Your task to perform on an android device: toggle notification dots Image 0: 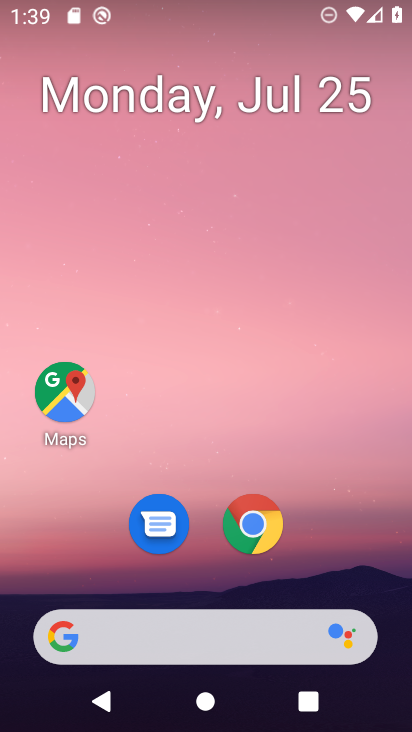
Step 0: drag from (233, 615) to (324, 73)
Your task to perform on an android device: toggle notification dots Image 1: 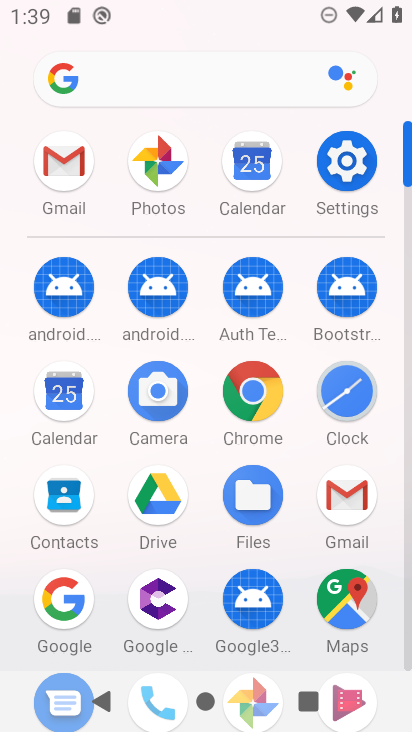
Step 1: click (349, 145)
Your task to perform on an android device: toggle notification dots Image 2: 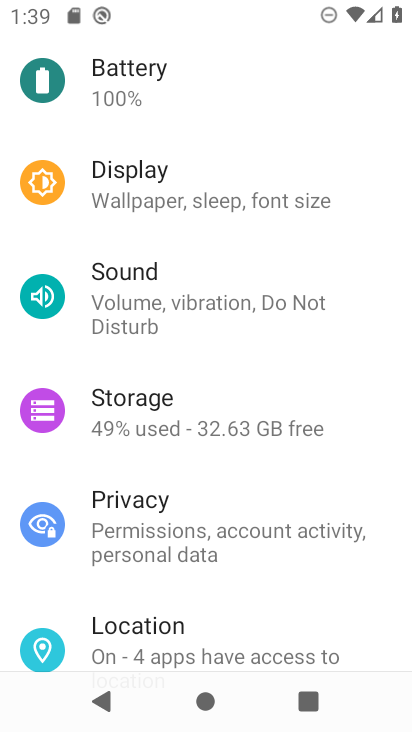
Step 2: drag from (319, 153) to (288, 620)
Your task to perform on an android device: toggle notification dots Image 3: 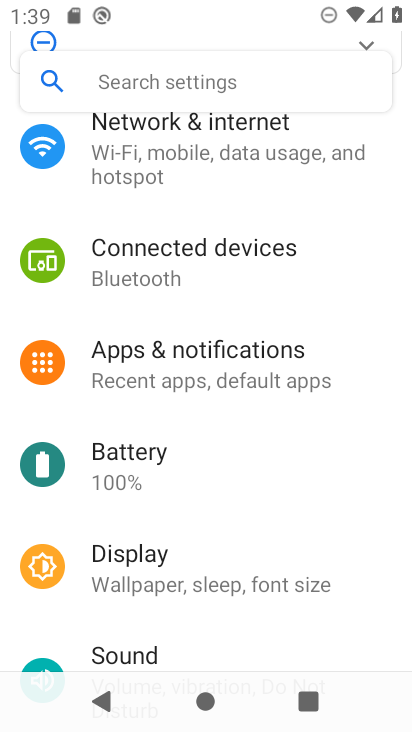
Step 3: click (267, 362)
Your task to perform on an android device: toggle notification dots Image 4: 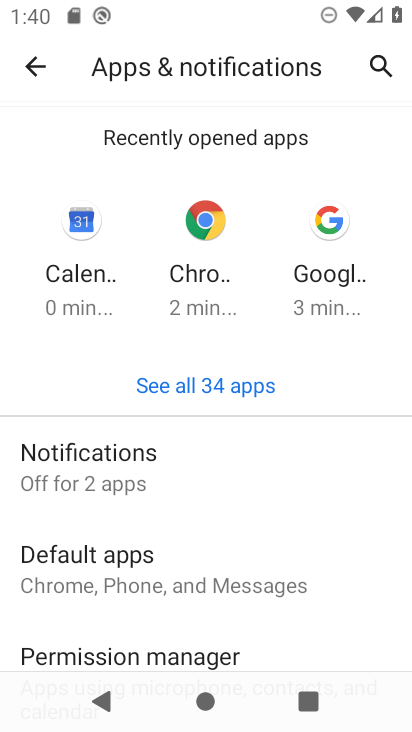
Step 4: click (98, 475)
Your task to perform on an android device: toggle notification dots Image 5: 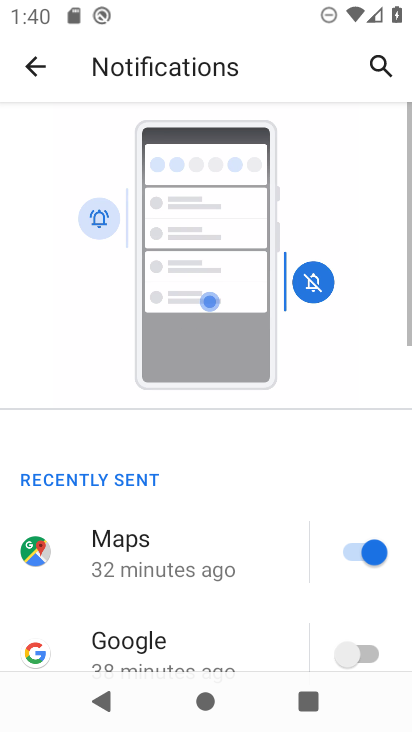
Step 5: drag from (252, 614) to (282, 87)
Your task to perform on an android device: toggle notification dots Image 6: 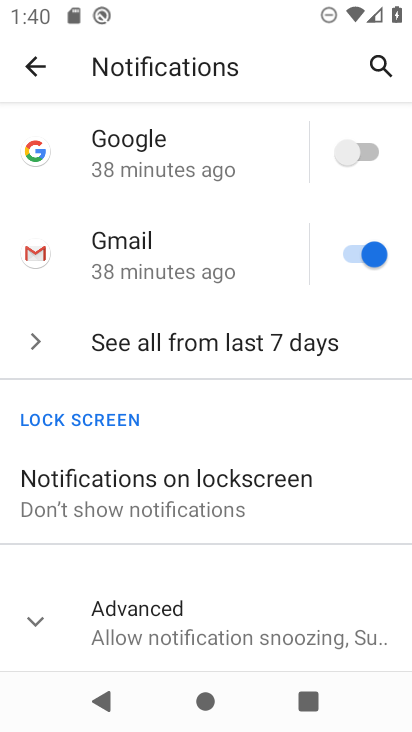
Step 6: drag from (260, 560) to (385, 99)
Your task to perform on an android device: toggle notification dots Image 7: 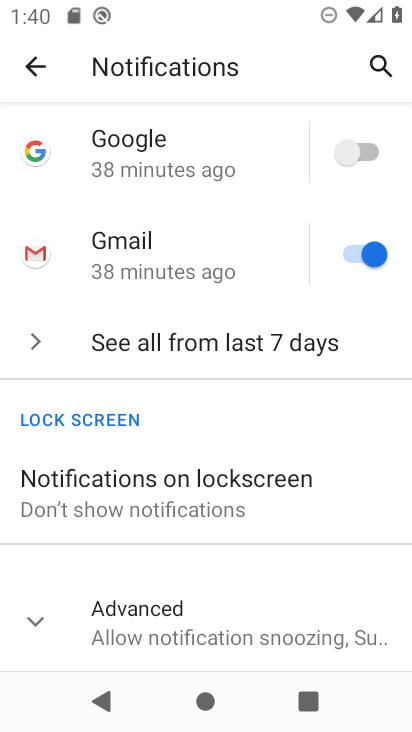
Step 7: click (225, 632)
Your task to perform on an android device: toggle notification dots Image 8: 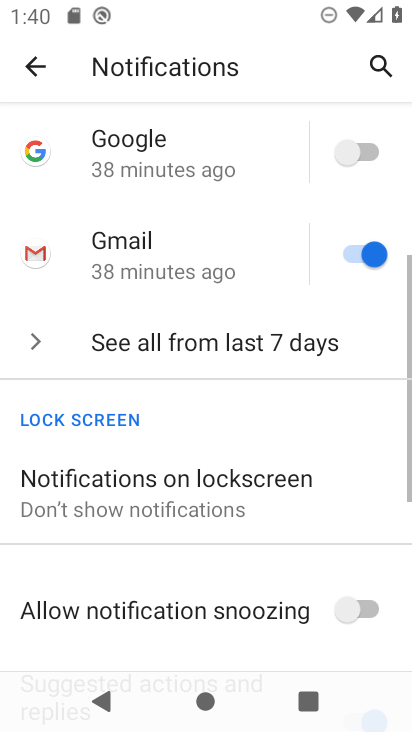
Step 8: drag from (231, 637) to (293, 63)
Your task to perform on an android device: toggle notification dots Image 9: 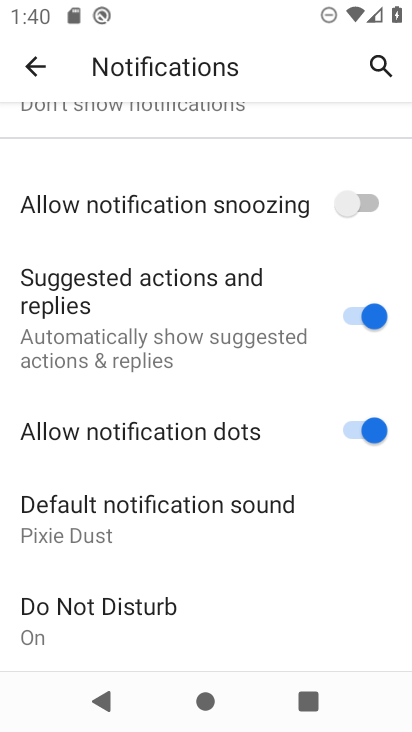
Step 9: click (353, 428)
Your task to perform on an android device: toggle notification dots Image 10: 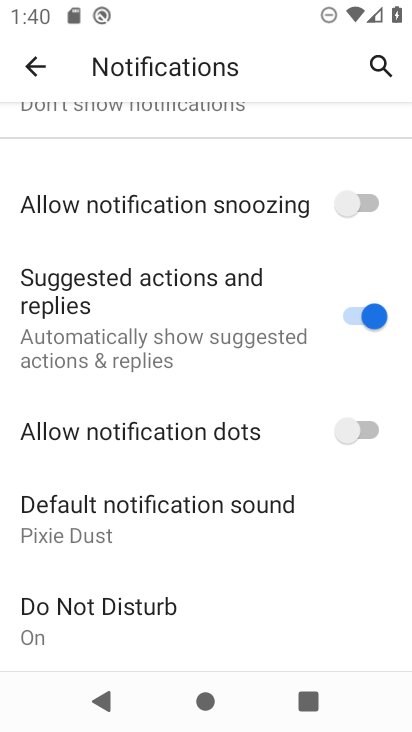
Step 10: task complete